Your task to perform on an android device: manage bookmarks in the chrome app Image 0: 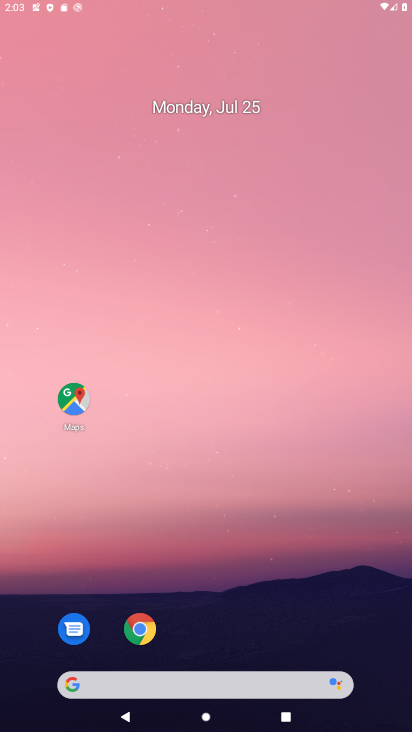
Step 0: click (394, 37)
Your task to perform on an android device: manage bookmarks in the chrome app Image 1: 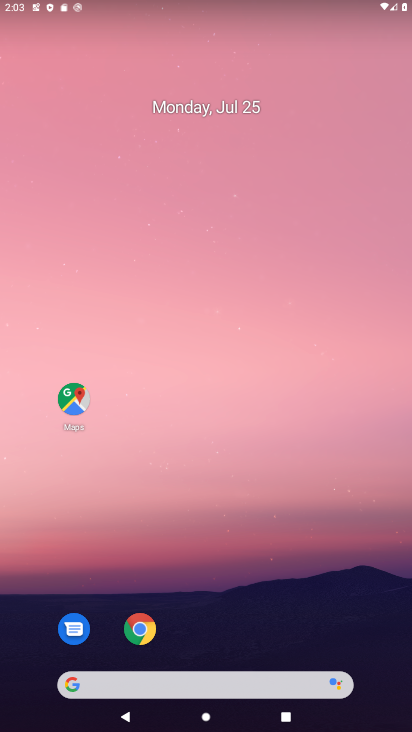
Step 1: drag from (192, 640) to (264, 104)
Your task to perform on an android device: manage bookmarks in the chrome app Image 2: 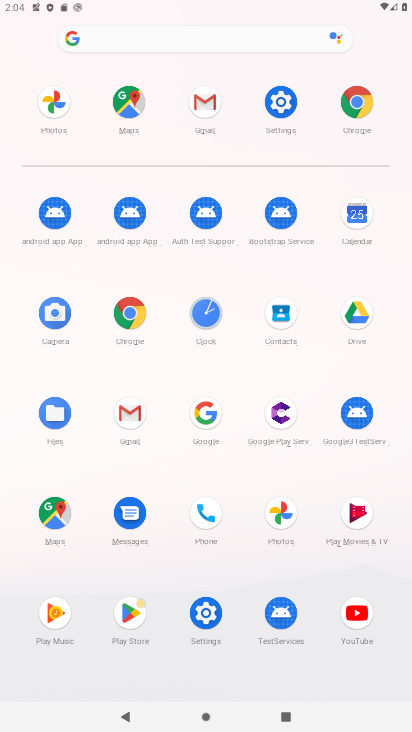
Step 2: drag from (241, 517) to (244, 192)
Your task to perform on an android device: manage bookmarks in the chrome app Image 3: 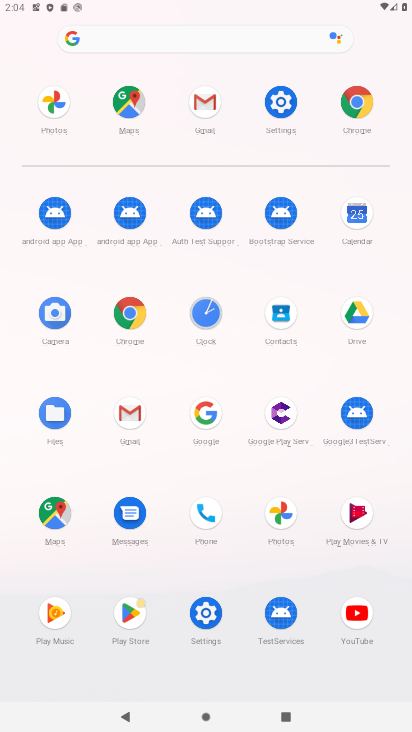
Step 3: drag from (233, 660) to (232, 509)
Your task to perform on an android device: manage bookmarks in the chrome app Image 4: 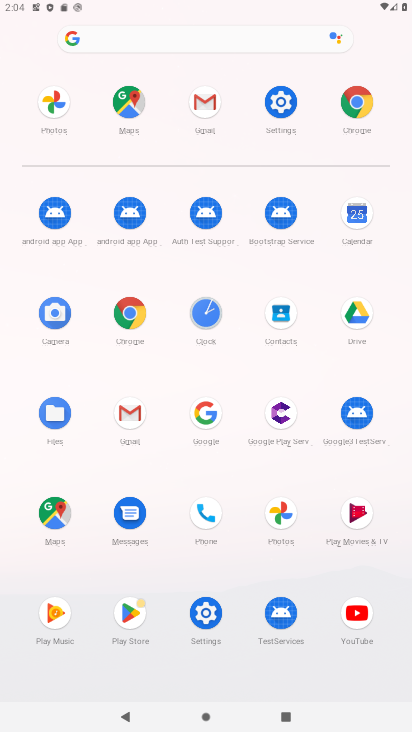
Step 4: click (359, 96)
Your task to perform on an android device: manage bookmarks in the chrome app Image 5: 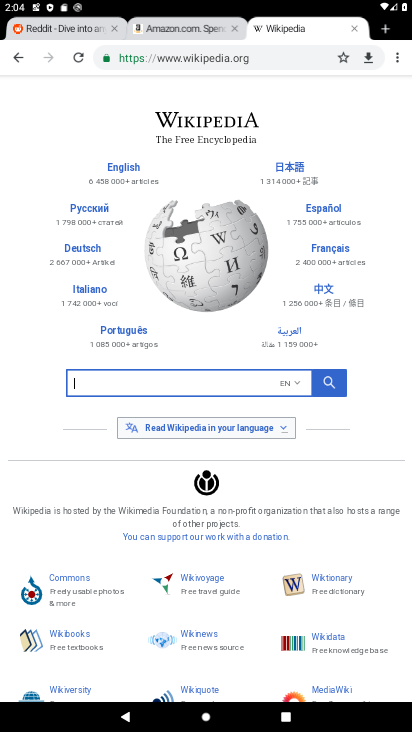
Step 5: drag from (208, 132) to (213, 444)
Your task to perform on an android device: manage bookmarks in the chrome app Image 6: 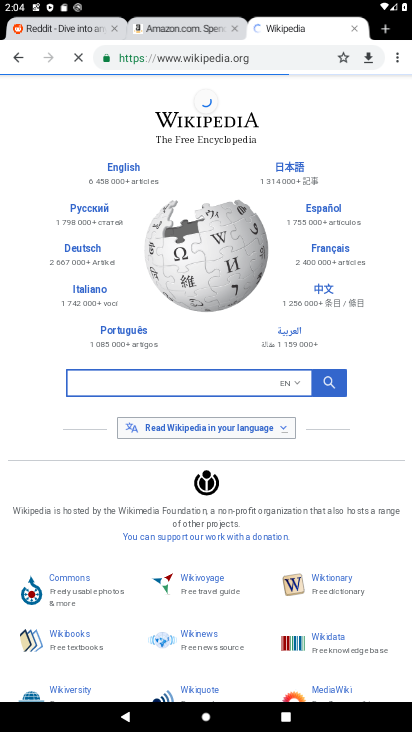
Step 6: drag from (212, 264) to (236, 77)
Your task to perform on an android device: manage bookmarks in the chrome app Image 7: 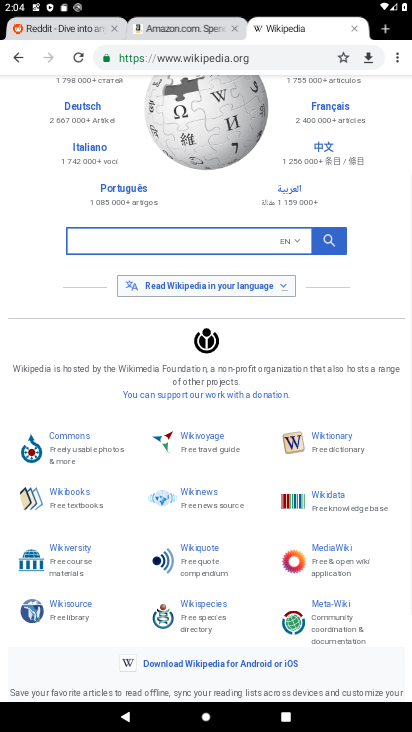
Step 7: drag from (218, 192) to (220, 589)
Your task to perform on an android device: manage bookmarks in the chrome app Image 8: 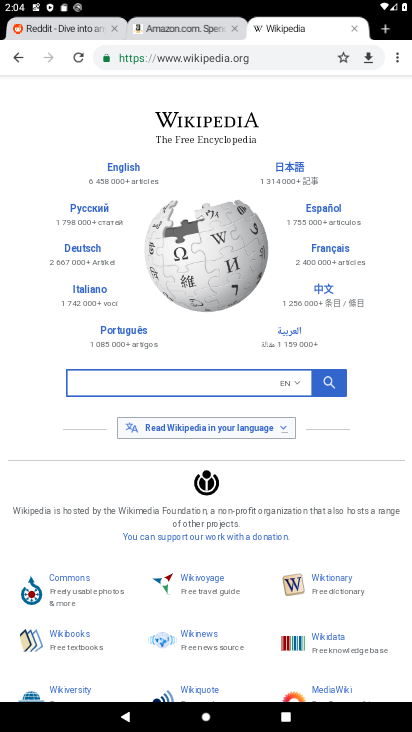
Step 8: drag from (225, 339) to (238, 168)
Your task to perform on an android device: manage bookmarks in the chrome app Image 9: 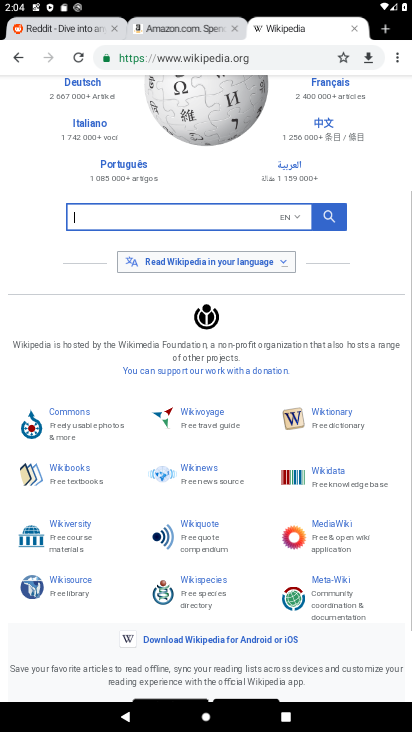
Step 9: drag from (240, 135) to (273, 730)
Your task to perform on an android device: manage bookmarks in the chrome app Image 10: 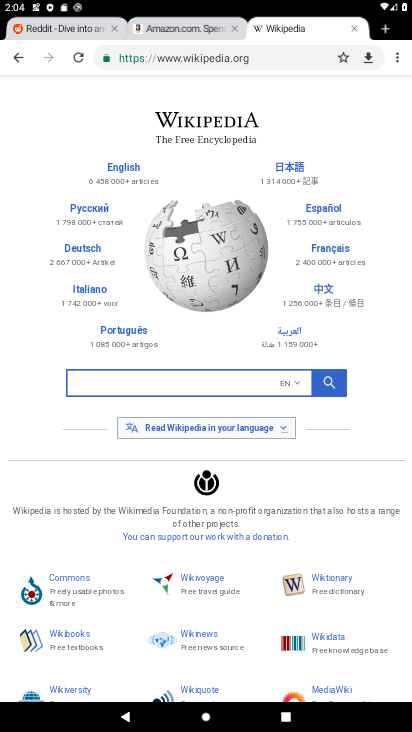
Step 10: drag from (212, 140) to (210, 609)
Your task to perform on an android device: manage bookmarks in the chrome app Image 11: 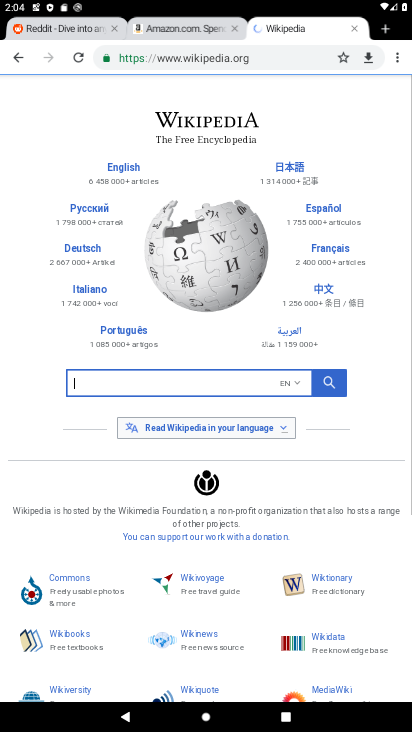
Step 11: drag from (399, 53) to (316, 161)
Your task to perform on an android device: manage bookmarks in the chrome app Image 12: 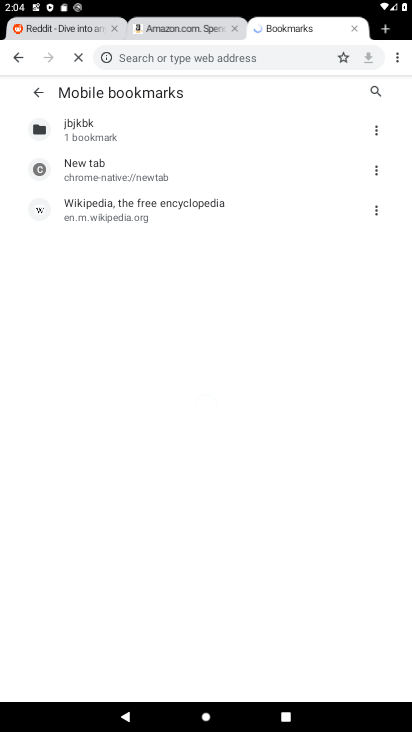
Step 12: drag from (161, 513) to (243, 78)
Your task to perform on an android device: manage bookmarks in the chrome app Image 13: 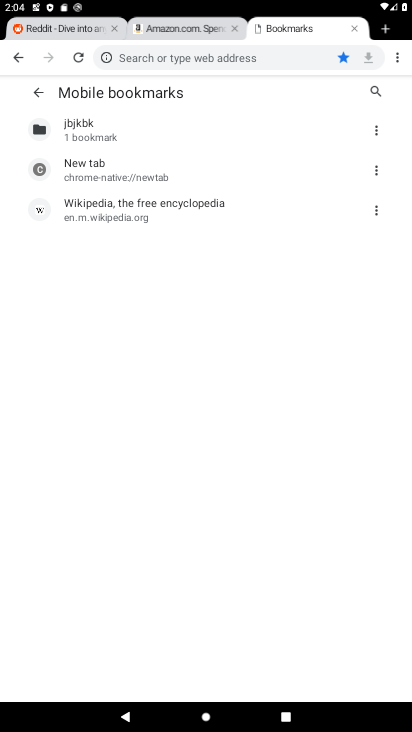
Step 13: drag from (188, 271) to (255, 645)
Your task to perform on an android device: manage bookmarks in the chrome app Image 14: 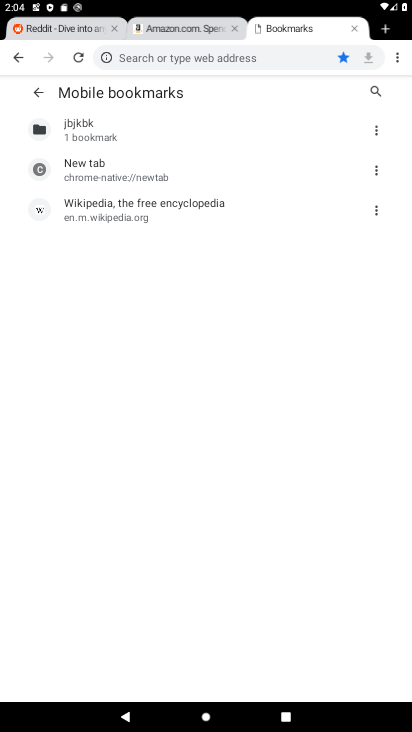
Step 14: drag from (261, 531) to (269, 68)
Your task to perform on an android device: manage bookmarks in the chrome app Image 15: 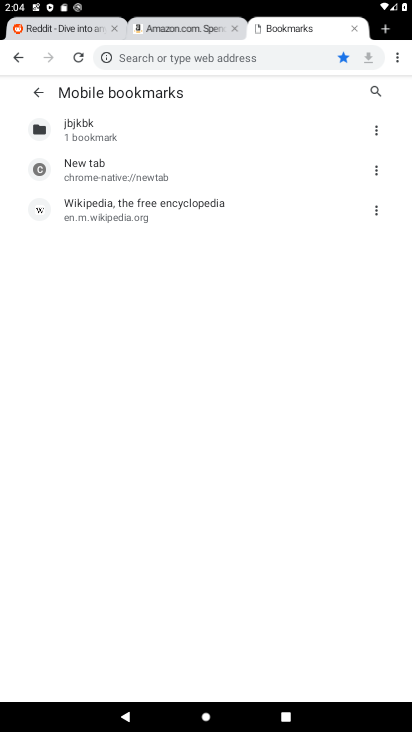
Step 15: drag from (202, 285) to (289, 524)
Your task to perform on an android device: manage bookmarks in the chrome app Image 16: 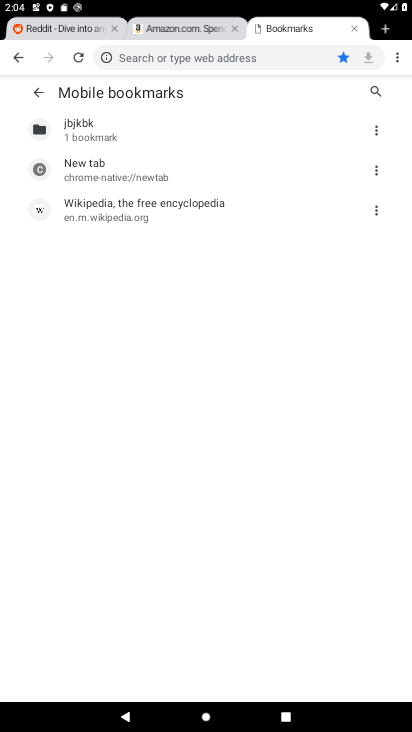
Step 16: drag from (256, 498) to (303, 191)
Your task to perform on an android device: manage bookmarks in the chrome app Image 17: 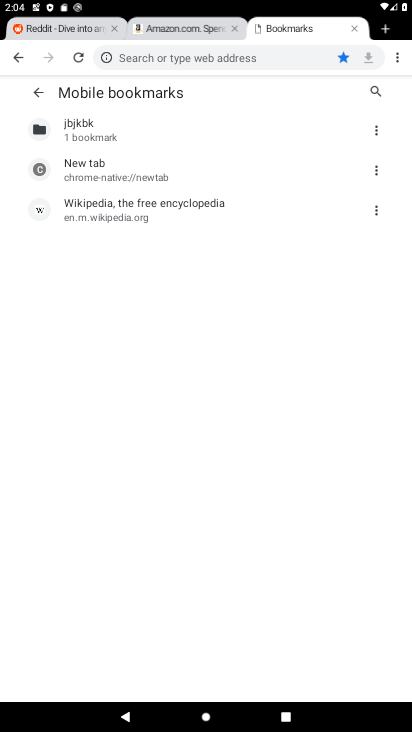
Step 17: drag from (184, 110) to (304, 715)
Your task to perform on an android device: manage bookmarks in the chrome app Image 18: 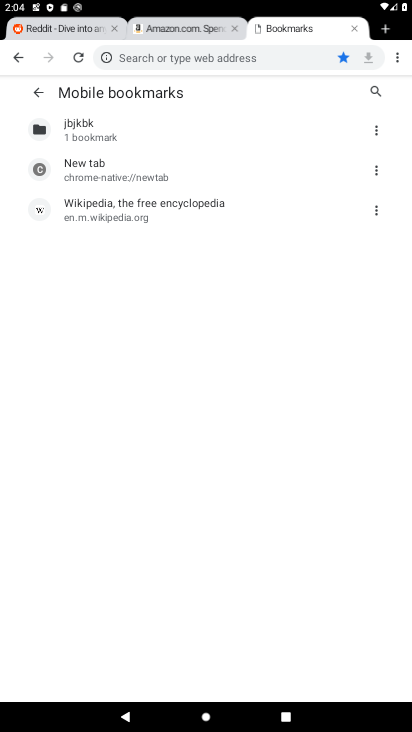
Step 18: drag from (165, 333) to (311, 631)
Your task to perform on an android device: manage bookmarks in the chrome app Image 19: 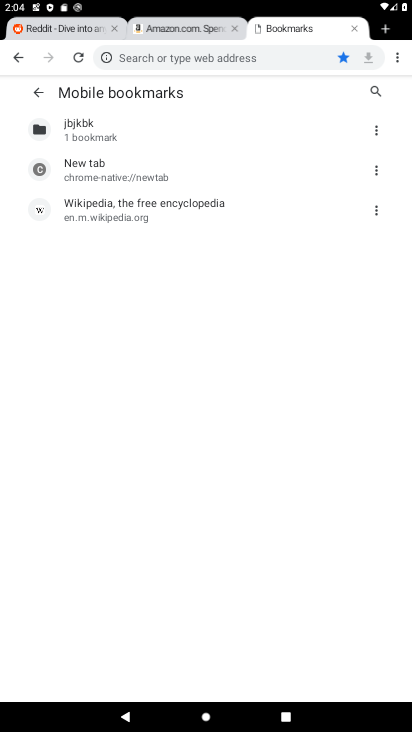
Step 19: click (377, 168)
Your task to perform on an android device: manage bookmarks in the chrome app Image 20: 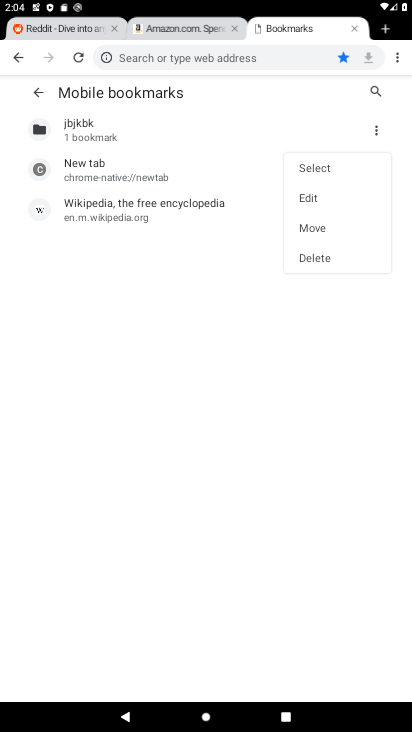
Step 20: click (313, 197)
Your task to perform on an android device: manage bookmarks in the chrome app Image 21: 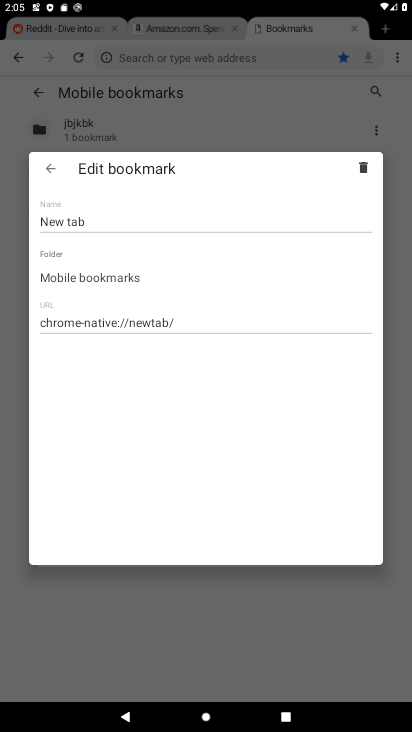
Step 21: task complete